Your task to perform on an android device: turn off airplane mode Image 0: 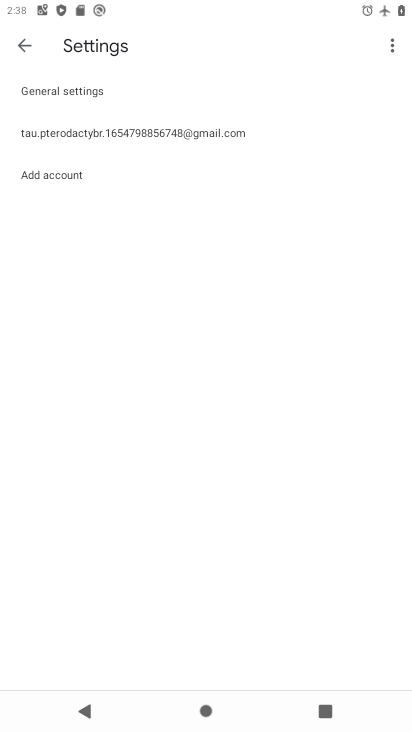
Step 0: press home button
Your task to perform on an android device: turn off airplane mode Image 1: 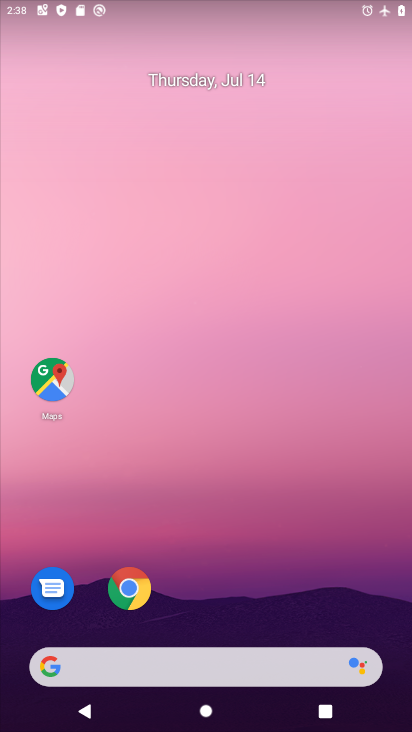
Step 1: drag from (237, 615) to (315, 174)
Your task to perform on an android device: turn off airplane mode Image 2: 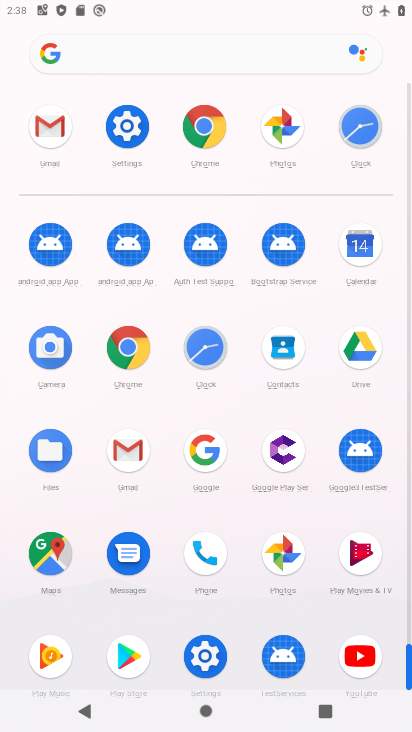
Step 2: click (135, 119)
Your task to perform on an android device: turn off airplane mode Image 3: 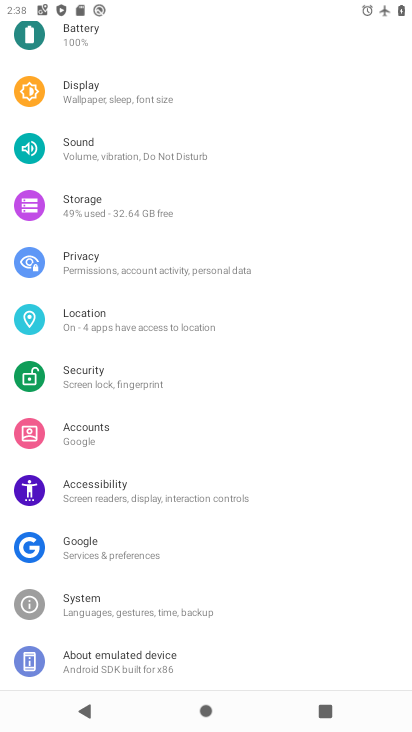
Step 3: drag from (139, 114) to (170, 669)
Your task to perform on an android device: turn off airplane mode Image 4: 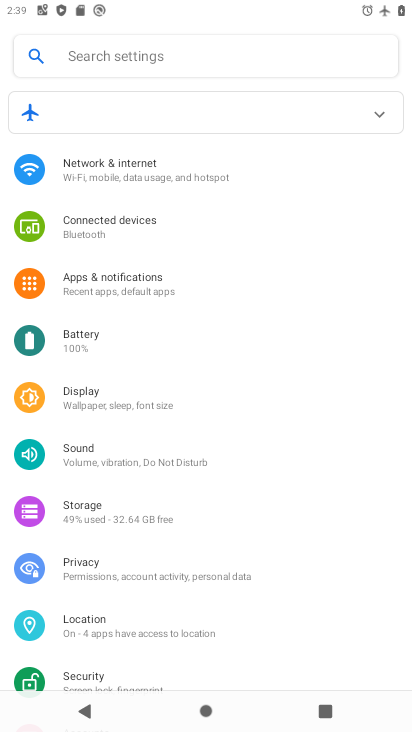
Step 4: click (160, 176)
Your task to perform on an android device: turn off airplane mode Image 5: 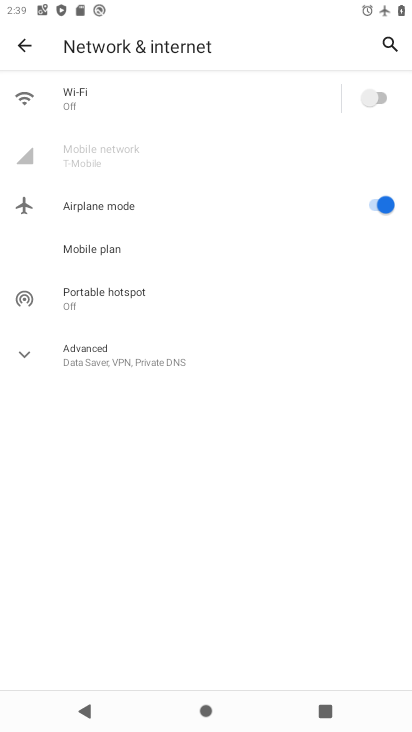
Step 5: click (374, 199)
Your task to perform on an android device: turn off airplane mode Image 6: 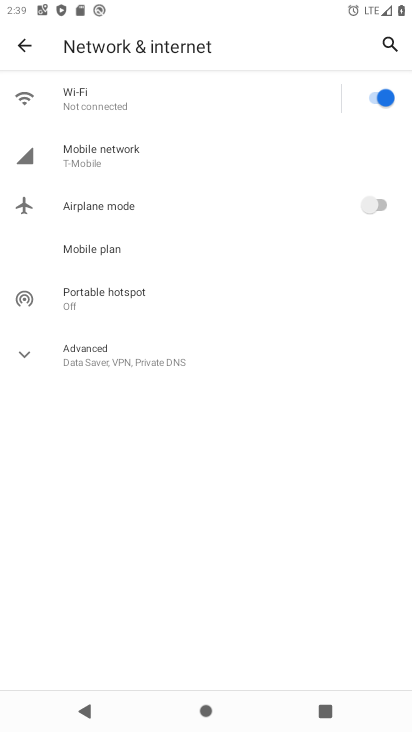
Step 6: task complete